Your task to perform on an android device: View the shopping cart on ebay. Add "macbook air" to the cart on ebay, then select checkout. Image 0: 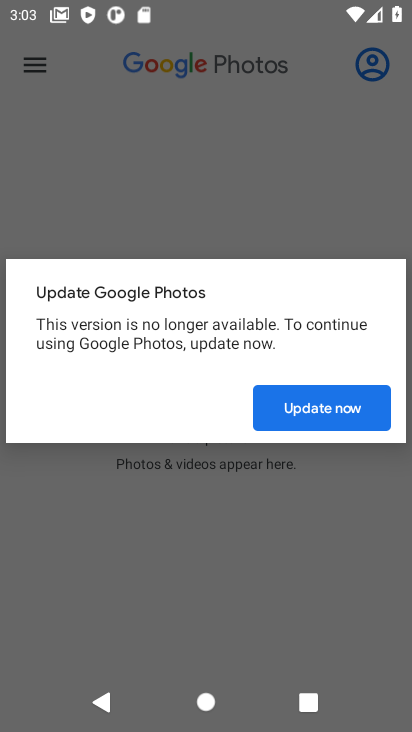
Step 0: press home button
Your task to perform on an android device: View the shopping cart on ebay. Add "macbook air" to the cart on ebay, then select checkout. Image 1: 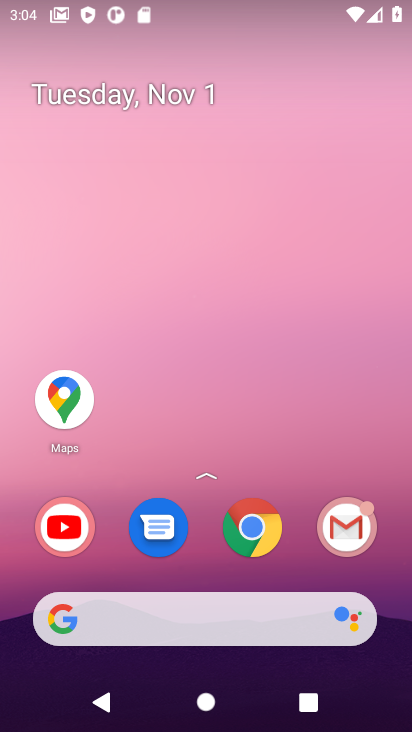
Step 1: click (236, 613)
Your task to perform on an android device: View the shopping cart on ebay. Add "macbook air" to the cart on ebay, then select checkout. Image 2: 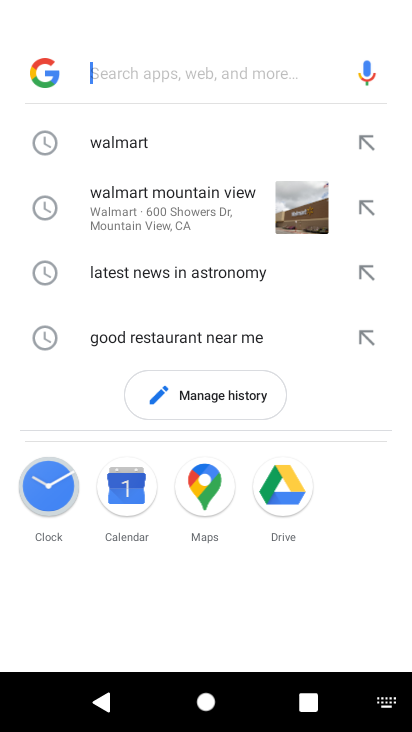
Step 2: type "ebay"
Your task to perform on an android device: View the shopping cart on ebay. Add "macbook air" to the cart on ebay, then select checkout. Image 3: 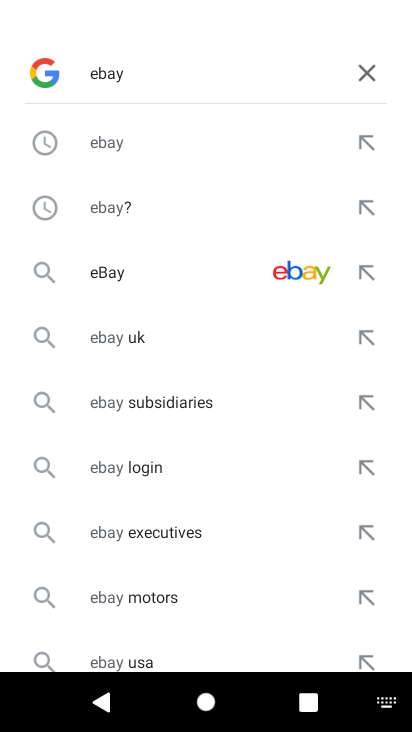
Step 3: click (134, 274)
Your task to perform on an android device: View the shopping cart on ebay. Add "macbook air" to the cart on ebay, then select checkout. Image 4: 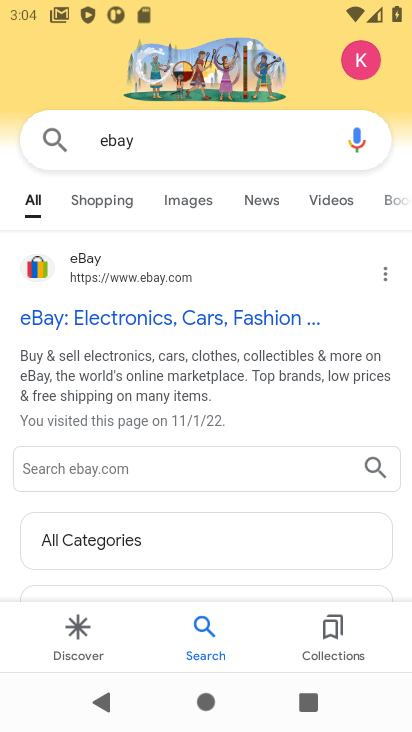
Step 4: click (114, 272)
Your task to perform on an android device: View the shopping cart on ebay. Add "macbook air" to the cart on ebay, then select checkout. Image 5: 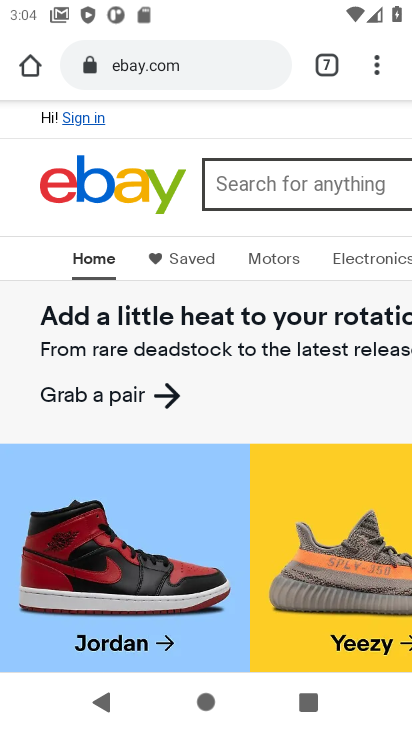
Step 5: click (315, 180)
Your task to perform on an android device: View the shopping cart on ebay. Add "macbook air" to the cart on ebay, then select checkout. Image 6: 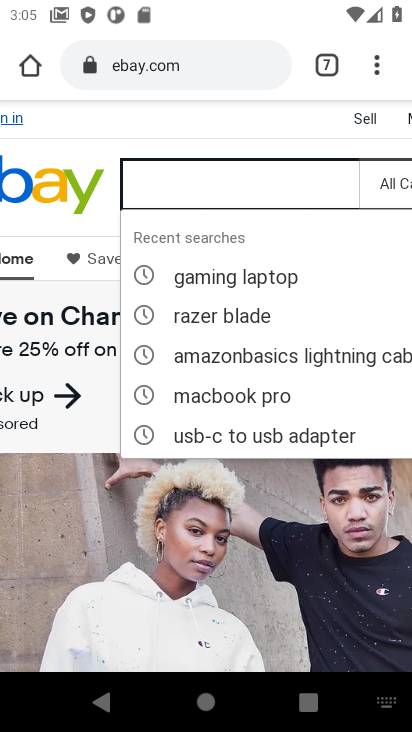
Step 6: type "macbook air"
Your task to perform on an android device: View the shopping cart on ebay. Add "macbook air" to the cart on ebay, then select checkout. Image 7: 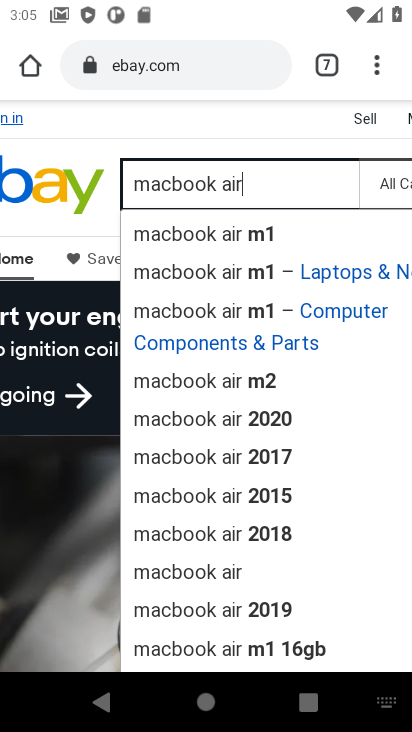
Step 7: click (234, 568)
Your task to perform on an android device: View the shopping cart on ebay. Add "macbook air" to the cart on ebay, then select checkout. Image 8: 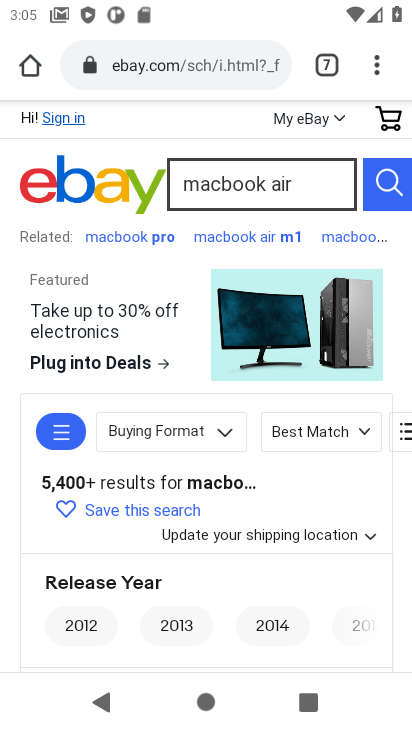
Step 8: drag from (251, 572) to (341, 274)
Your task to perform on an android device: View the shopping cart on ebay. Add "macbook air" to the cart on ebay, then select checkout. Image 9: 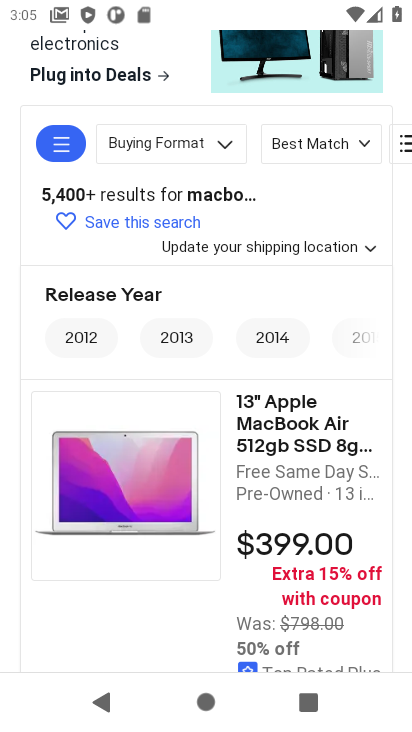
Step 9: click (238, 456)
Your task to perform on an android device: View the shopping cart on ebay. Add "macbook air" to the cart on ebay, then select checkout. Image 10: 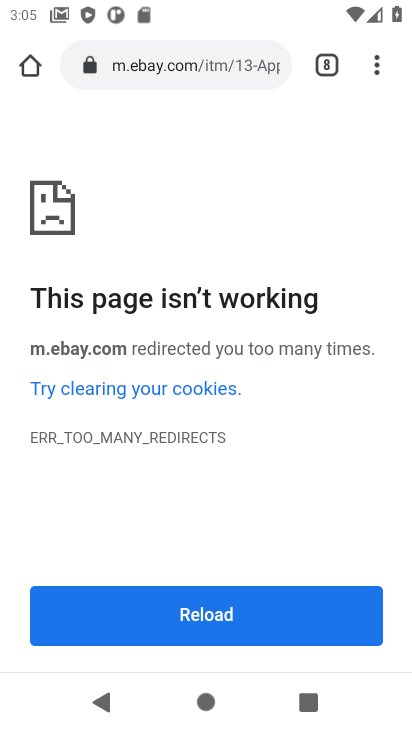
Step 10: click (199, 608)
Your task to perform on an android device: View the shopping cart on ebay. Add "macbook air" to the cart on ebay, then select checkout. Image 11: 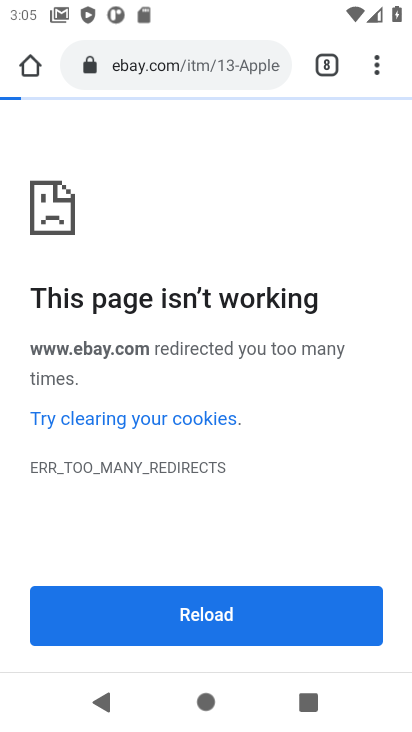
Step 11: press back button
Your task to perform on an android device: View the shopping cart on ebay. Add "macbook air" to the cart on ebay, then select checkout. Image 12: 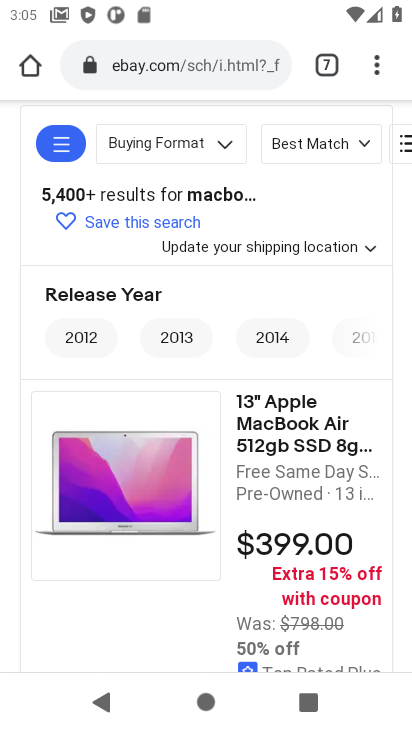
Step 12: drag from (324, 539) to (334, 369)
Your task to perform on an android device: View the shopping cart on ebay. Add "macbook air" to the cart on ebay, then select checkout. Image 13: 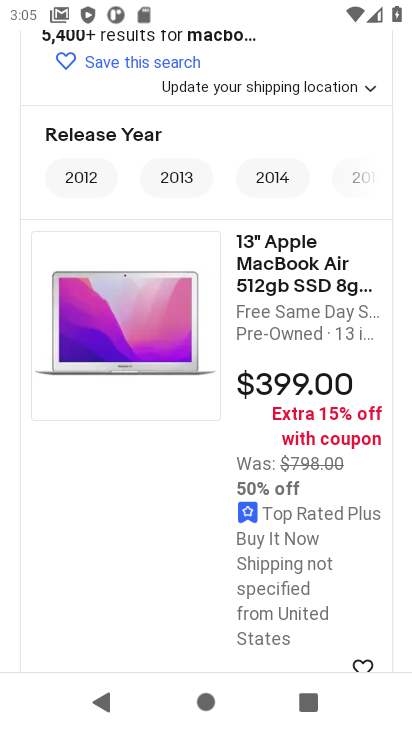
Step 13: drag from (308, 473) to (315, 373)
Your task to perform on an android device: View the shopping cart on ebay. Add "macbook air" to the cart on ebay, then select checkout. Image 14: 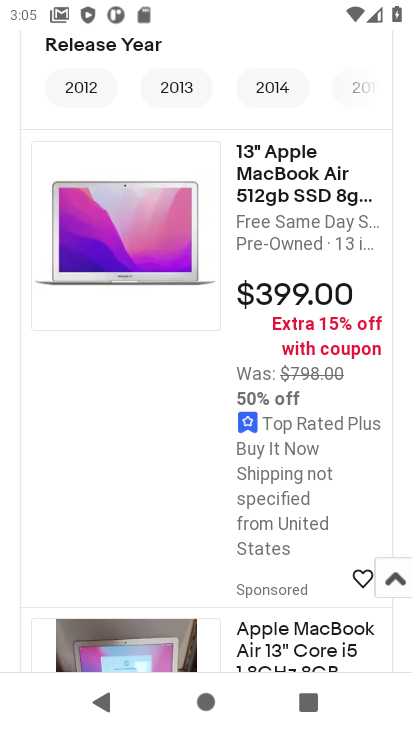
Step 14: click (267, 167)
Your task to perform on an android device: View the shopping cart on ebay. Add "macbook air" to the cart on ebay, then select checkout. Image 15: 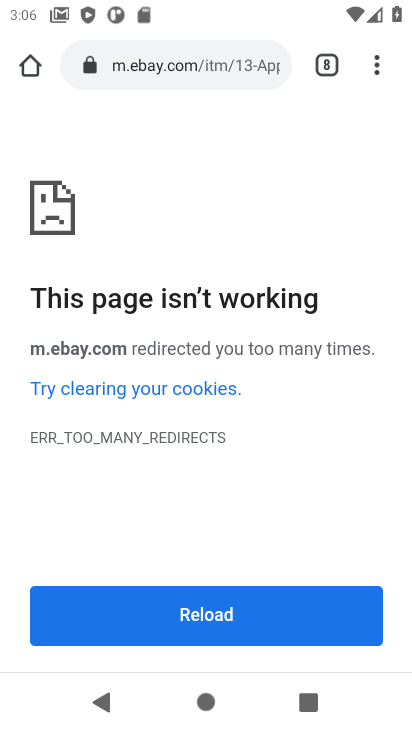
Step 15: click (209, 610)
Your task to perform on an android device: View the shopping cart on ebay. Add "macbook air" to the cart on ebay, then select checkout. Image 16: 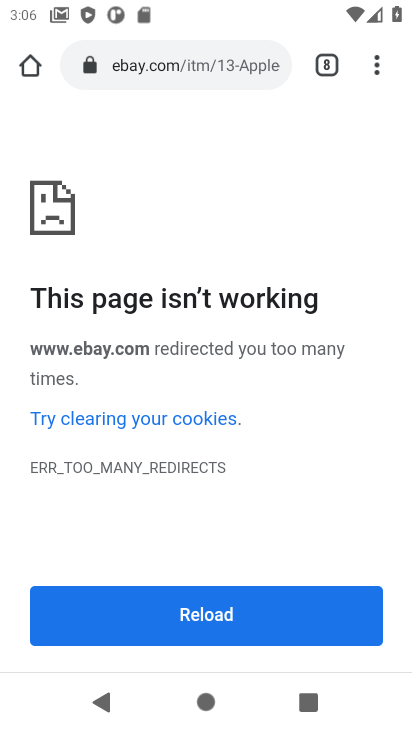
Step 16: task complete